Your task to perform on an android device: set an alarm Image 0: 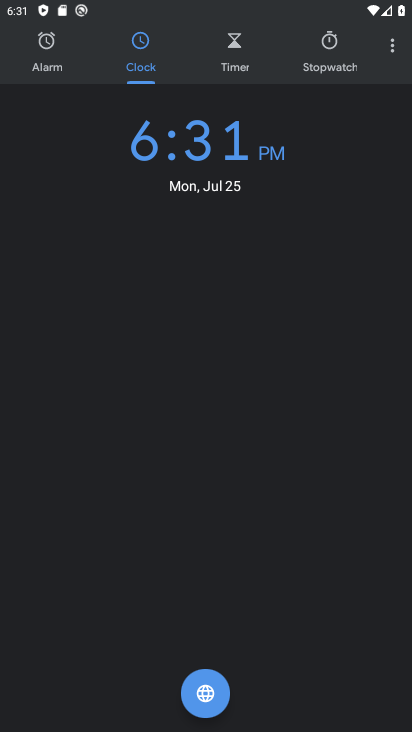
Step 0: click (44, 46)
Your task to perform on an android device: set an alarm Image 1: 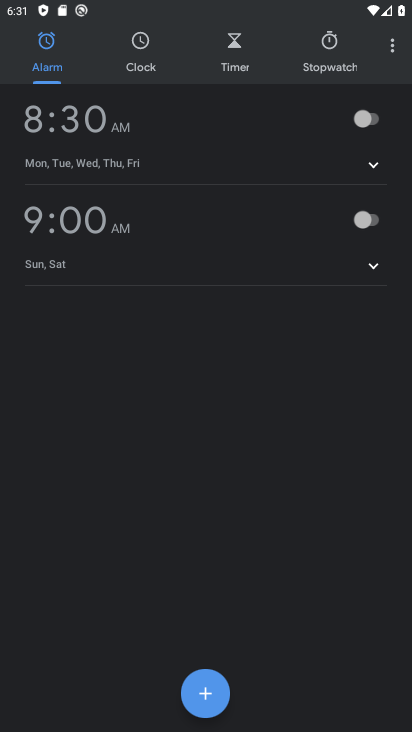
Step 1: click (202, 702)
Your task to perform on an android device: set an alarm Image 2: 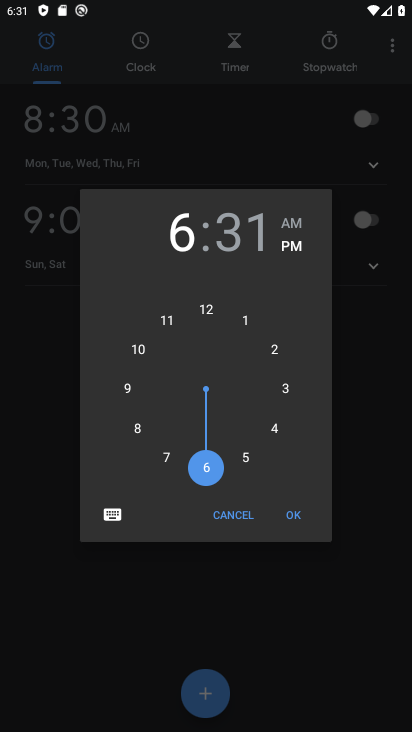
Step 2: click (289, 516)
Your task to perform on an android device: set an alarm Image 3: 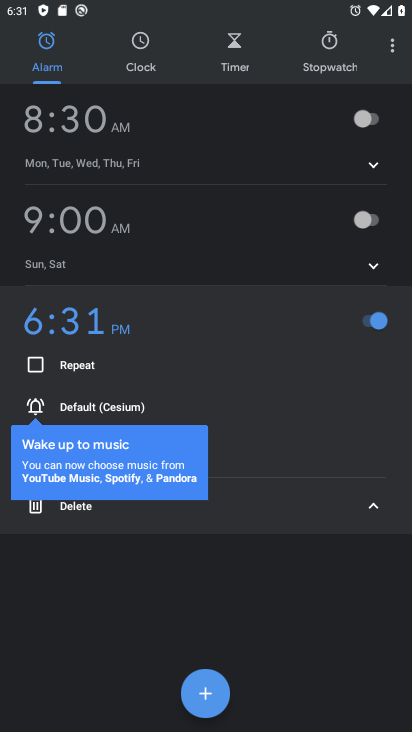
Step 3: task complete